Your task to perform on an android device: change notifications settings Image 0: 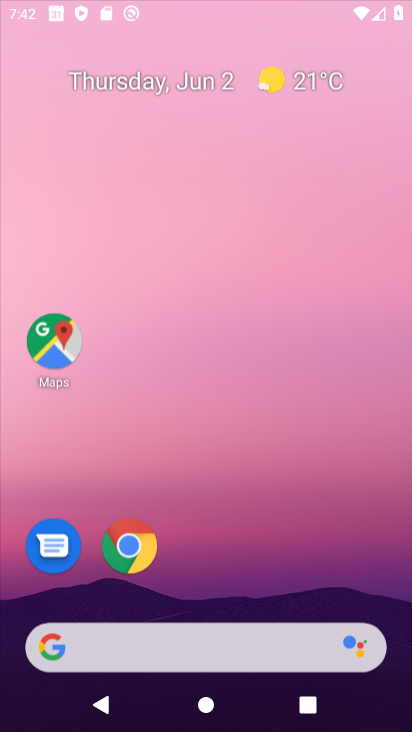
Step 0: click (331, 196)
Your task to perform on an android device: change notifications settings Image 1: 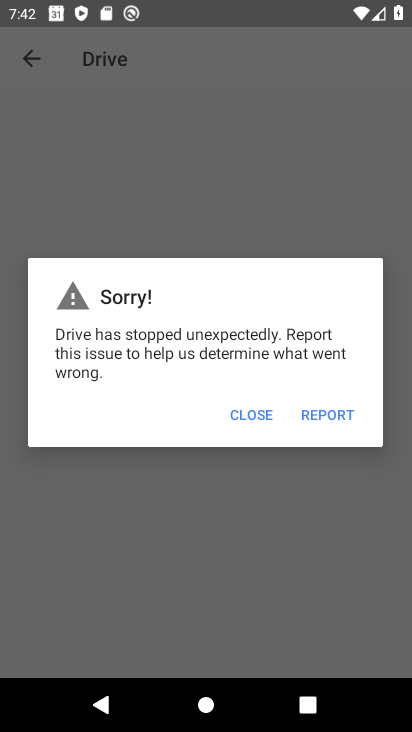
Step 1: press home button
Your task to perform on an android device: change notifications settings Image 2: 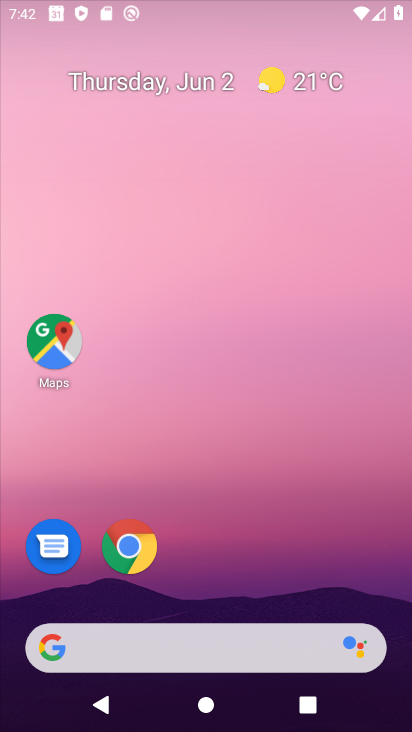
Step 2: drag from (341, 582) to (327, 227)
Your task to perform on an android device: change notifications settings Image 3: 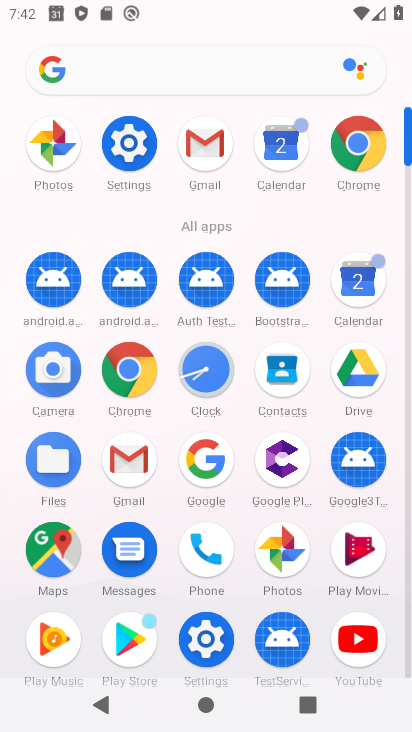
Step 3: click (138, 144)
Your task to perform on an android device: change notifications settings Image 4: 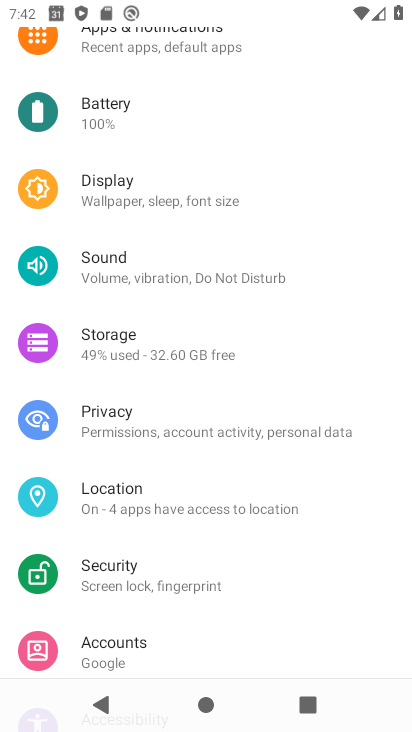
Step 4: drag from (179, 144) to (225, 420)
Your task to perform on an android device: change notifications settings Image 5: 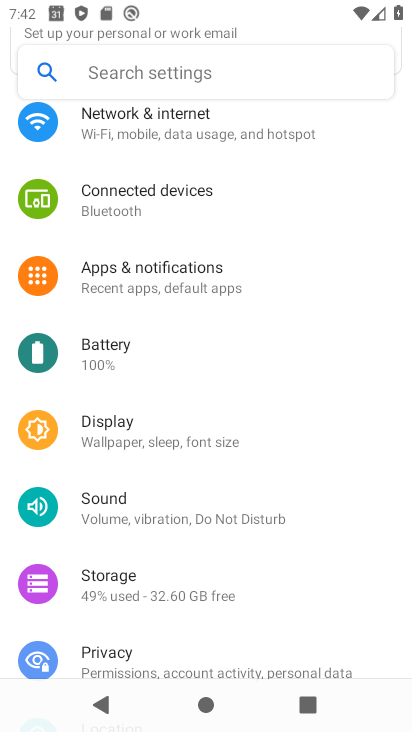
Step 5: click (158, 276)
Your task to perform on an android device: change notifications settings Image 6: 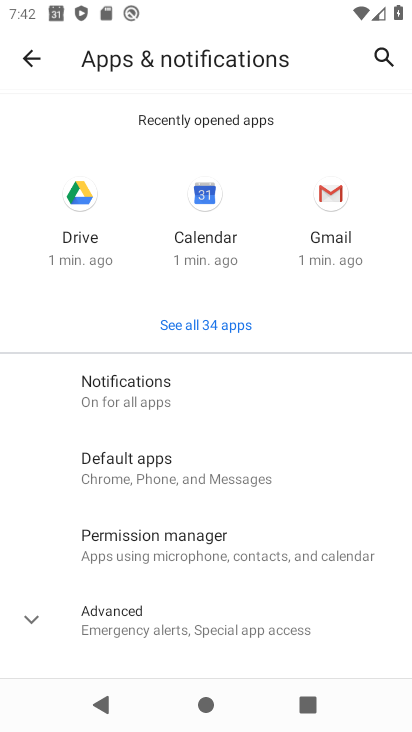
Step 6: drag from (233, 557) to (246, 308)
Your task to perform on an android device: change notifications settings Image 7: 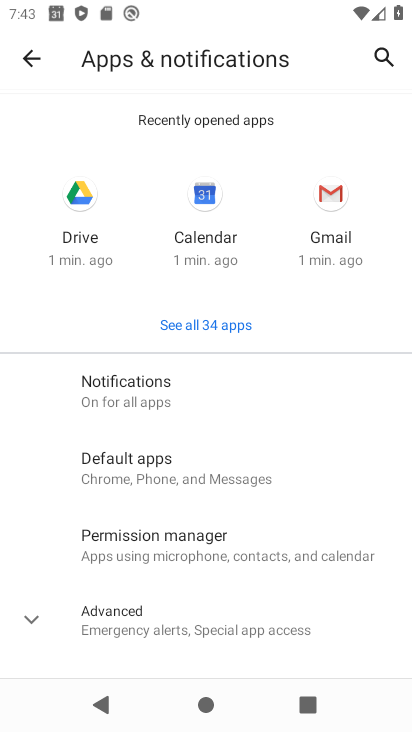
Step 7: click (113, 396)
Your task to perform on an android device: change notifications settings Image 8: 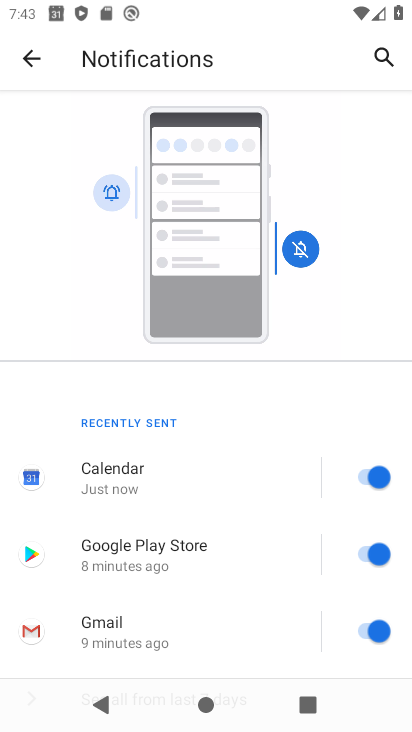
Step 8: drag from (196, 590) to (253, 385)
Your task to perform on an android device: change notifications settings Image 9: 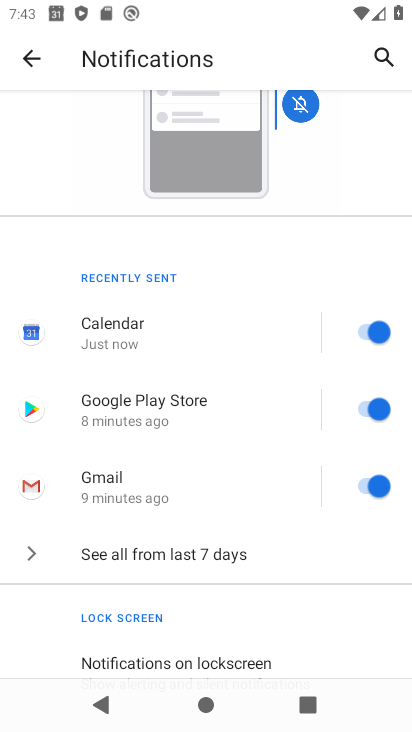
Step 9: click (369, 391)
Your task to perform on an android device: change notifications settings Image 10: 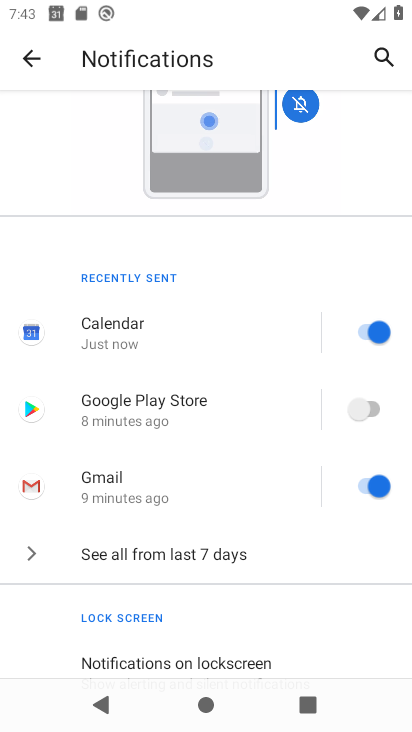
Step 10: task complete